Your task to perform on an android device: open app "Firefox Browser" Image 0: 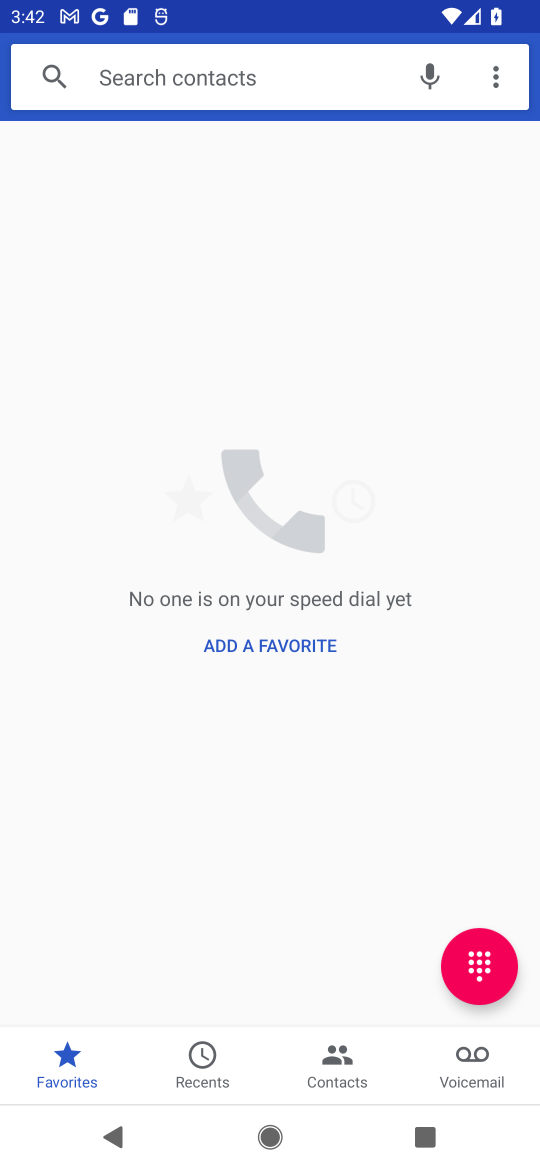
Step 0: press home button
Your task to perform on an android device: open app "Firefox Browser" Image 1: 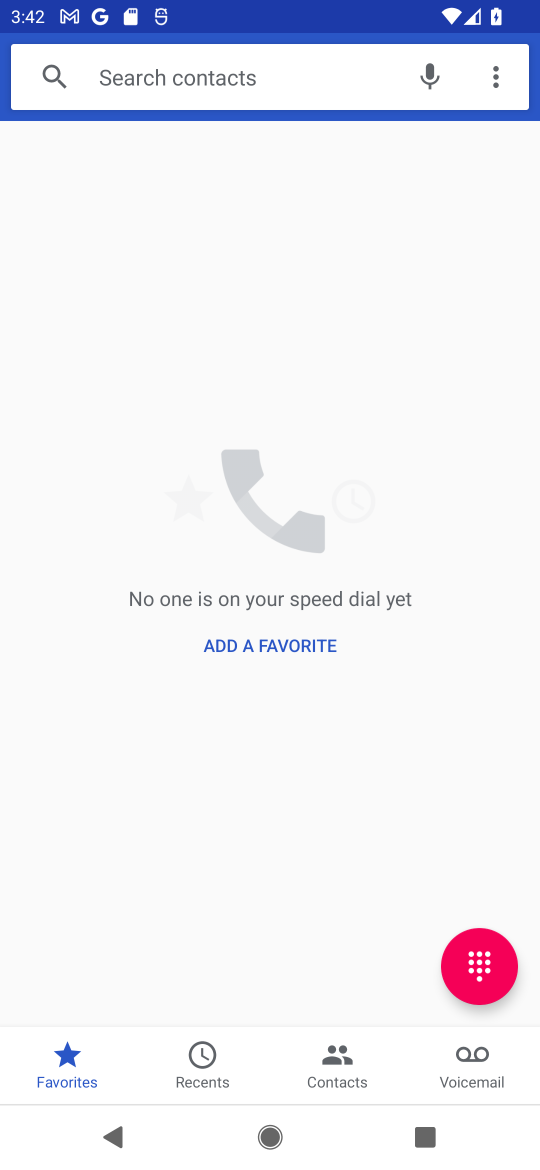
Step 1: press home button
Your task to perform on an android device: open app "Firefox Browser" Image 2: 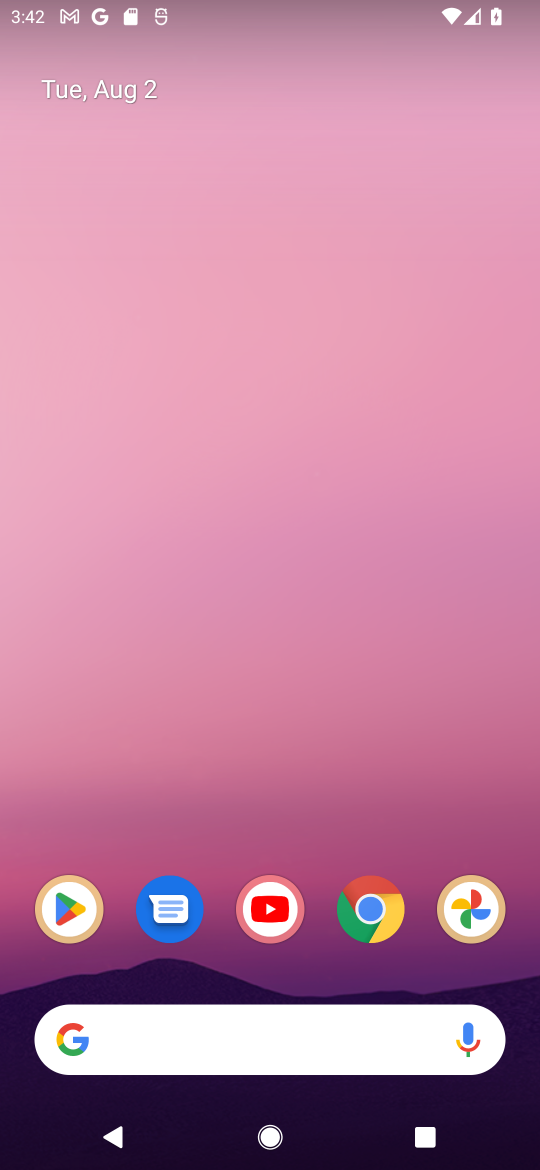
Step 2: drag from (235, 990) to (342, 317)
Your task to perform on an android device: open app "Firefox Browser" Image 3: 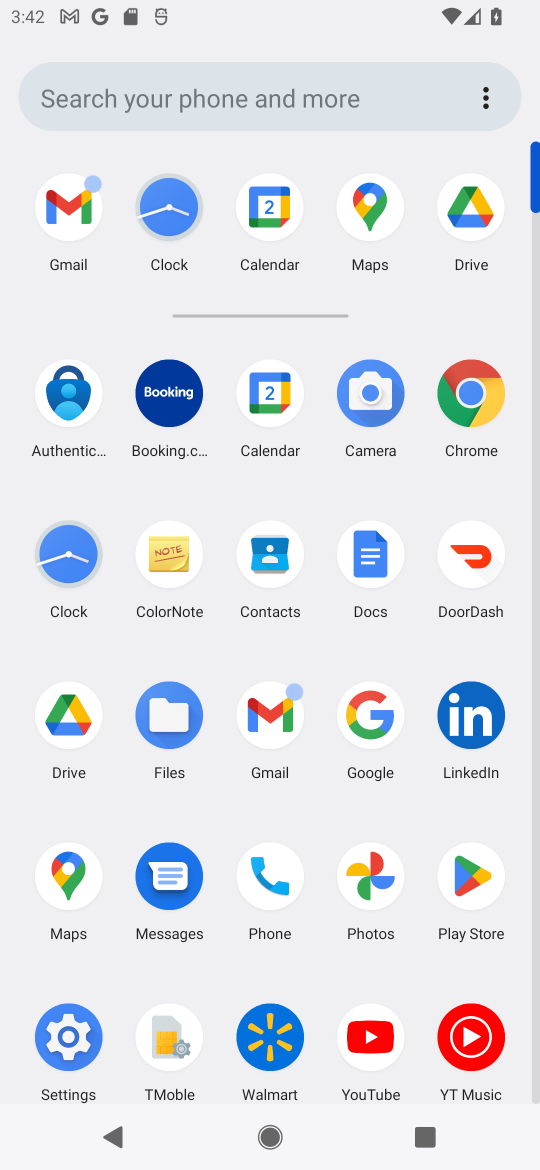
Step 3: press home button
Your task to perform on an android device: open app "Firefox Browser" Image 4: 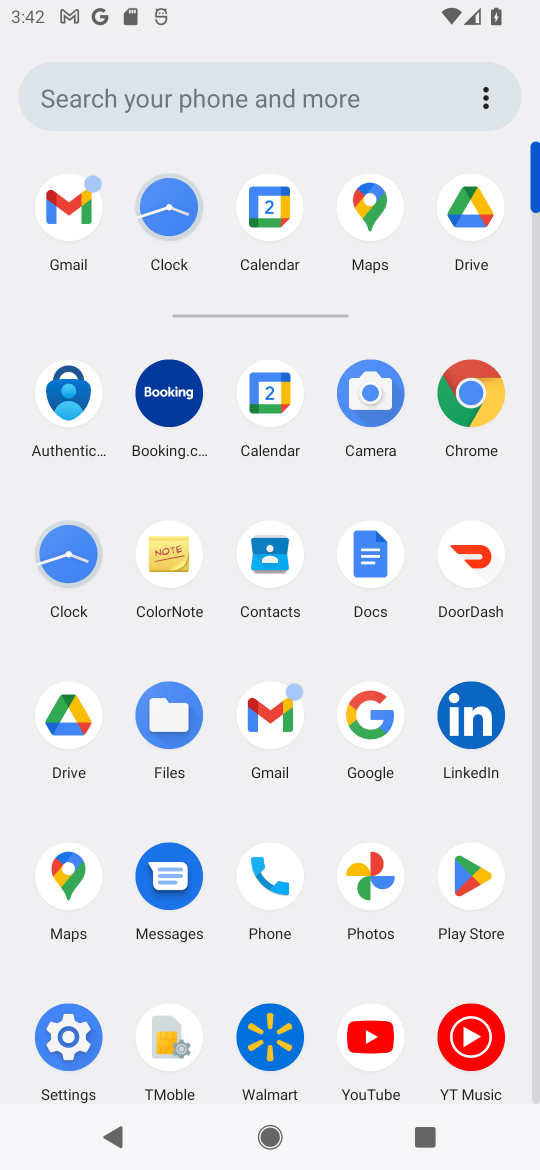
Step 4: press home button
Your task to perform on an android device: open app "Firefox Browser" Image 5: 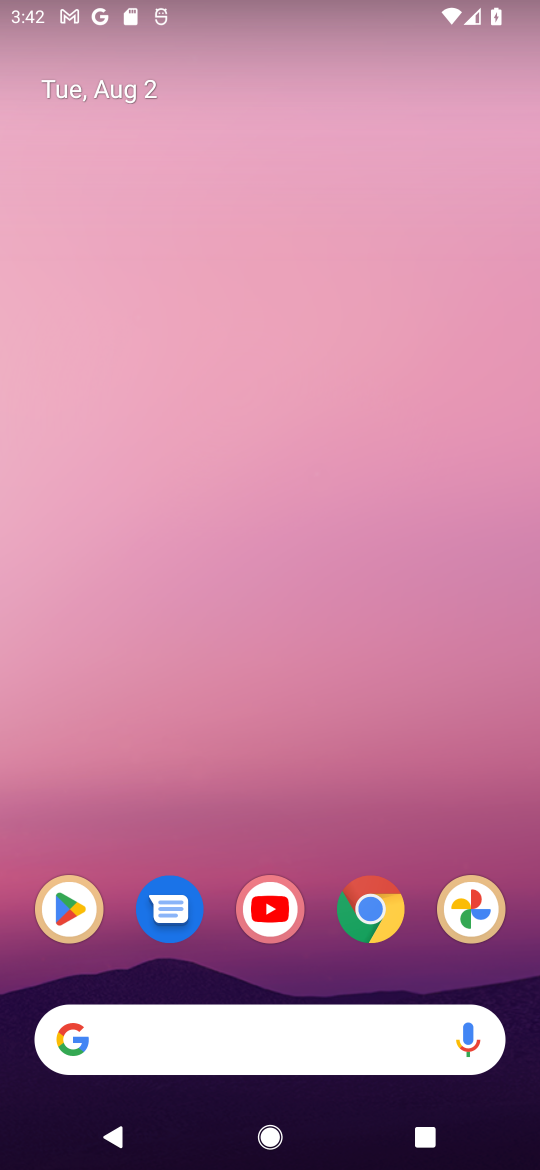
Step 5: drag from (280, 993) to (398, 176)
Your task to perform on an android device: open app "Firefox Browser" Image 6: 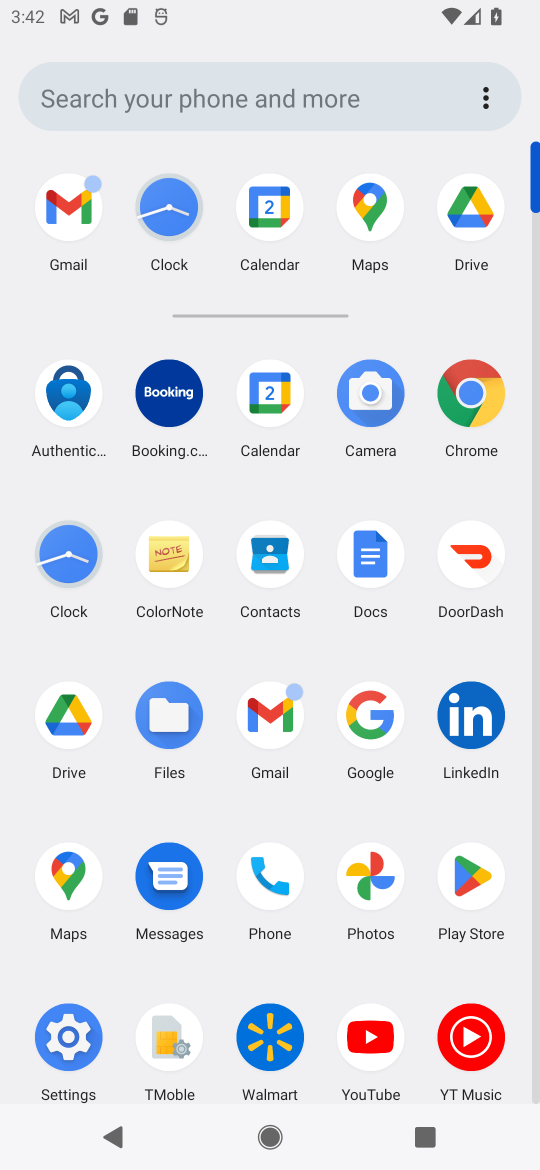
Step 6: click (476, 871)
Your task to perform on an android device: open app "Firefox Browser" Image 7: 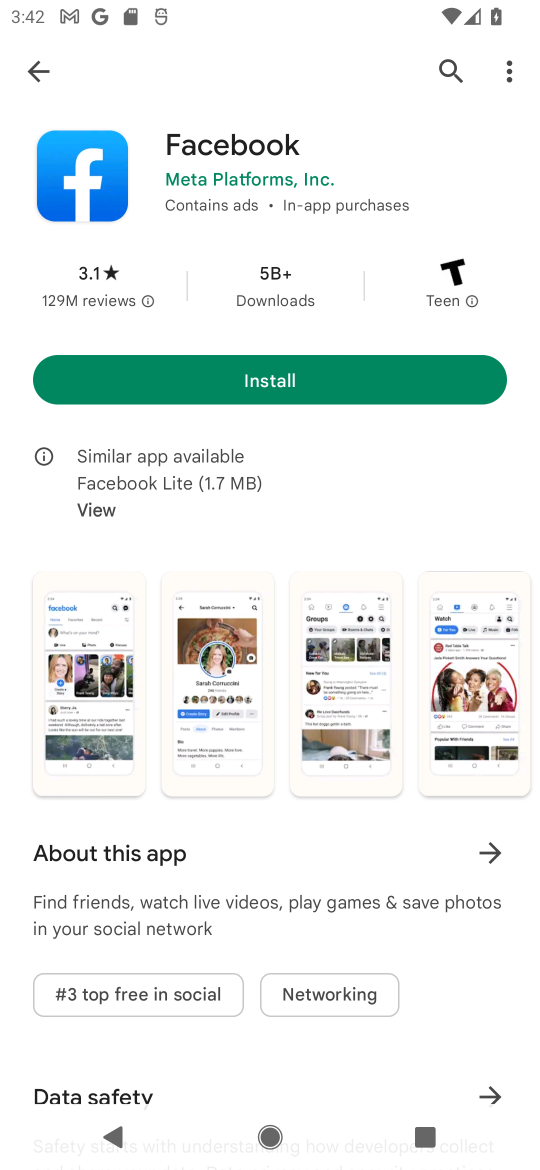
Step 7: drag from (297, 904) to (345, 1167)
Your task to perform on an android device: open app "Firefox Browser" Image 8: 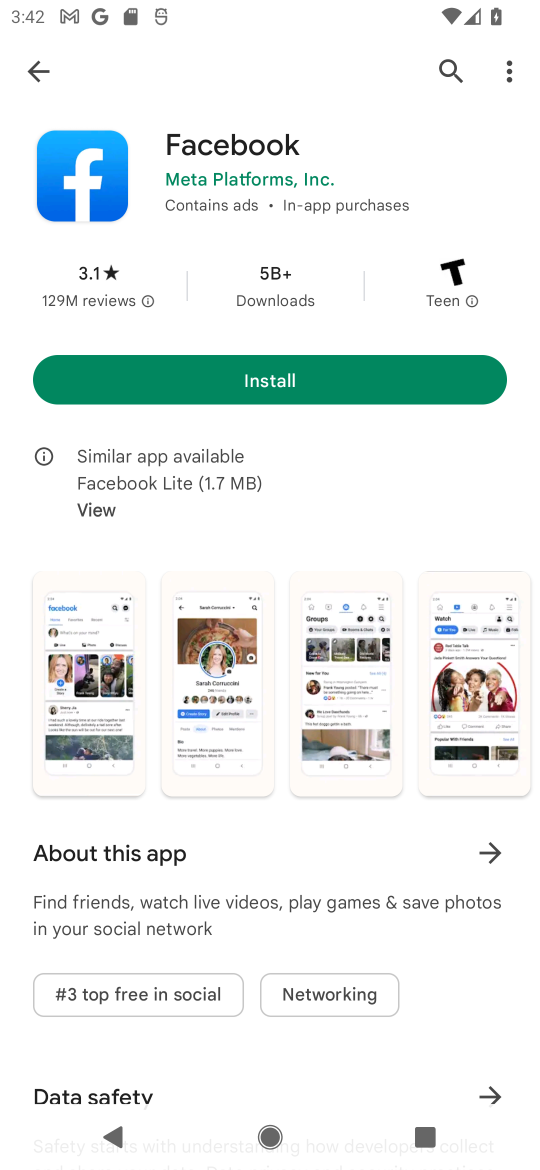
Step 8: click (443, 66)
Your task to perform on an android device: open app "Firefox Browser" Image 9: 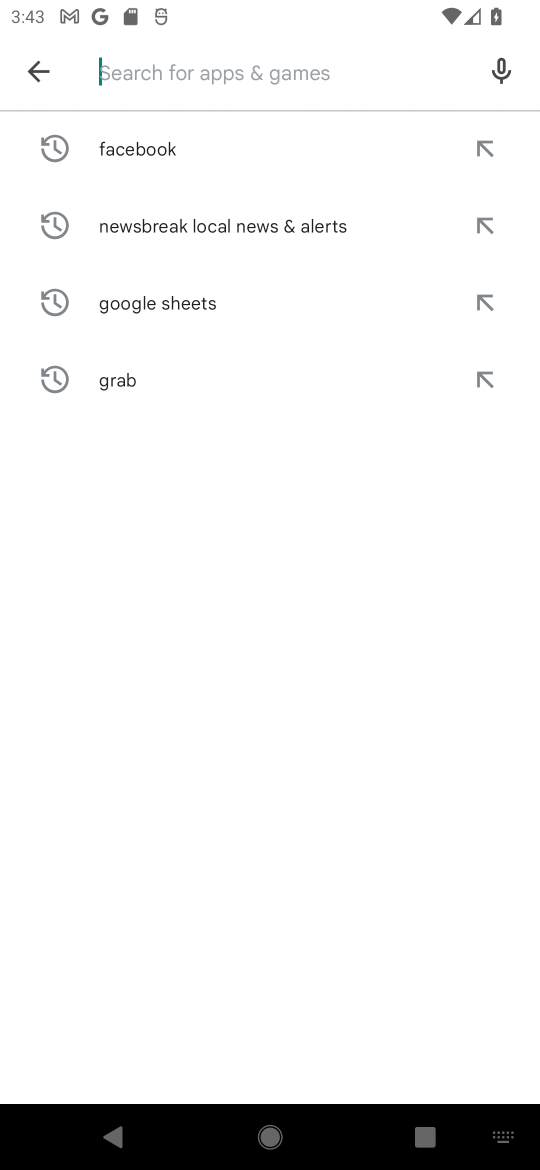
Step 9: type "Firefox Browser"
Your task to perform on an android device: open app "Firefox Browser" Image 10: 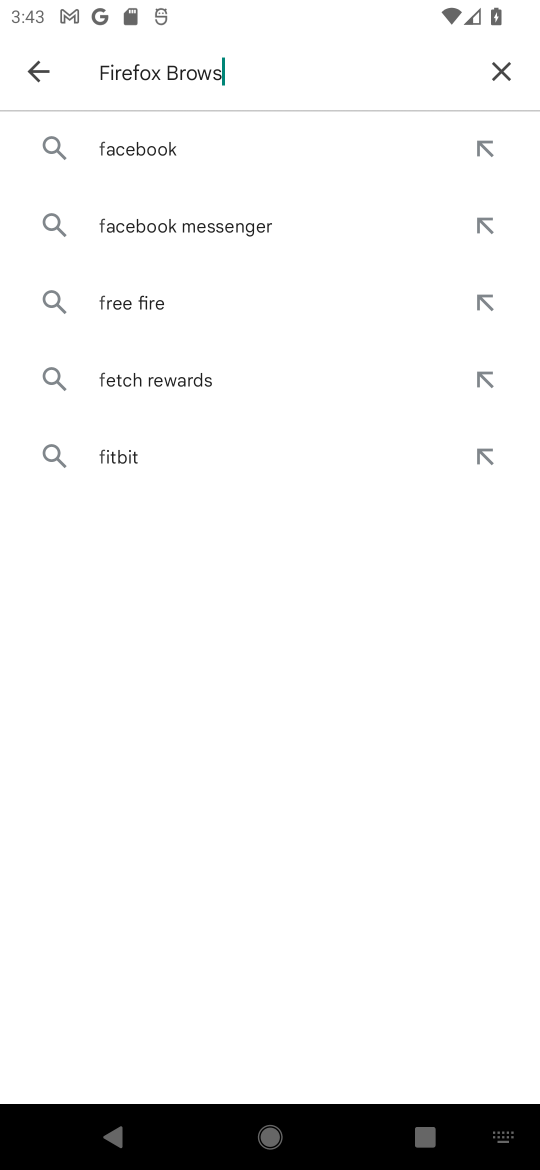
Step 10: type ""
Your task to perform on an android device: open app "Firefox Browser" Image 11: 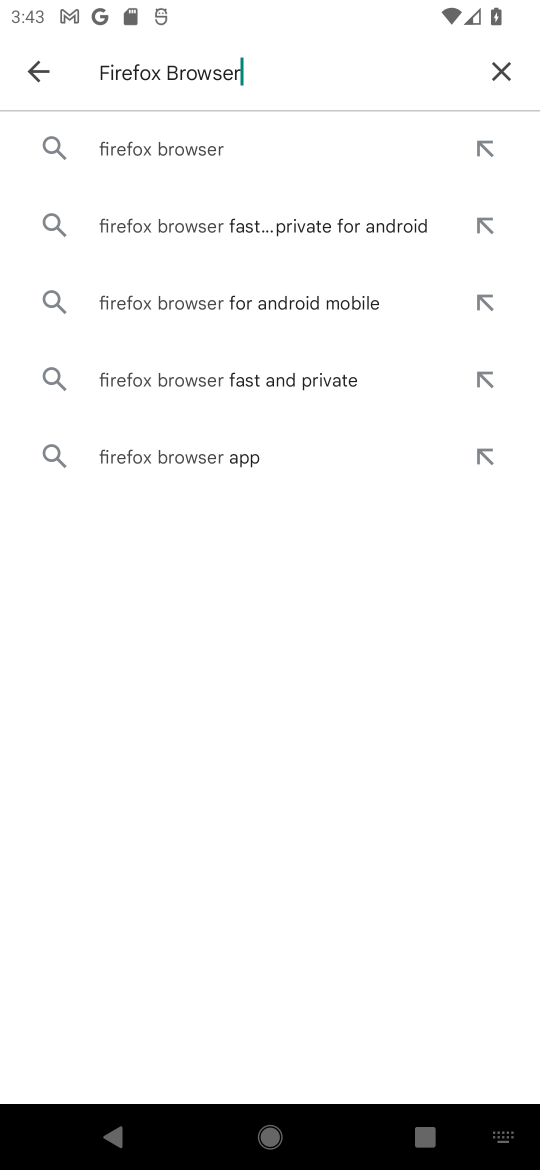
Step 11: click (162, 137)
Your task to perform on an android device: open app "Firefox Browser" Image 12: 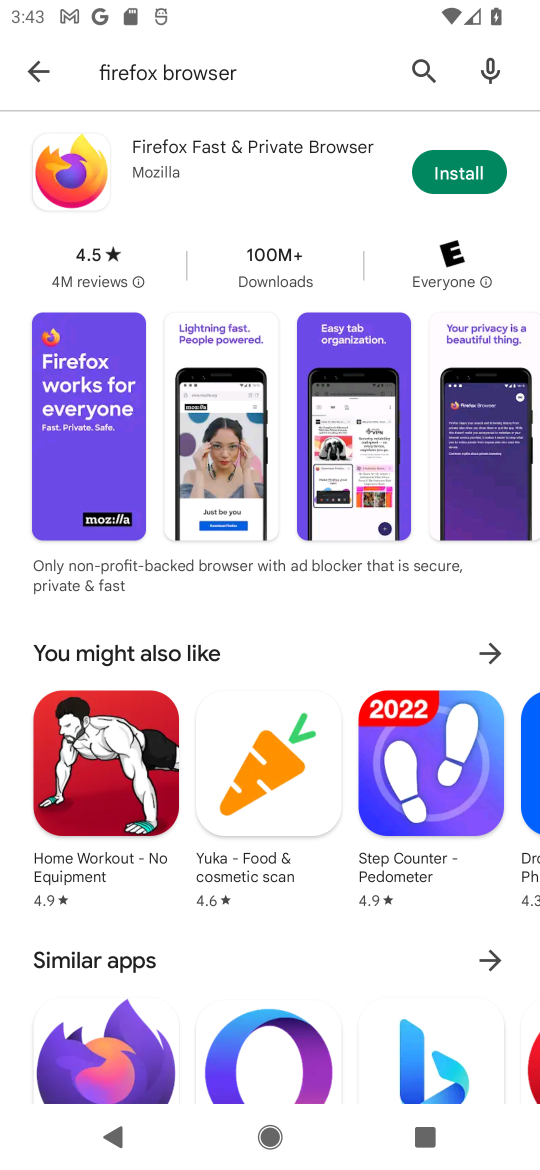
Step 12: click (171, 152)
Your task to perform on an android device: open app "Firefox Browser" Image 13: 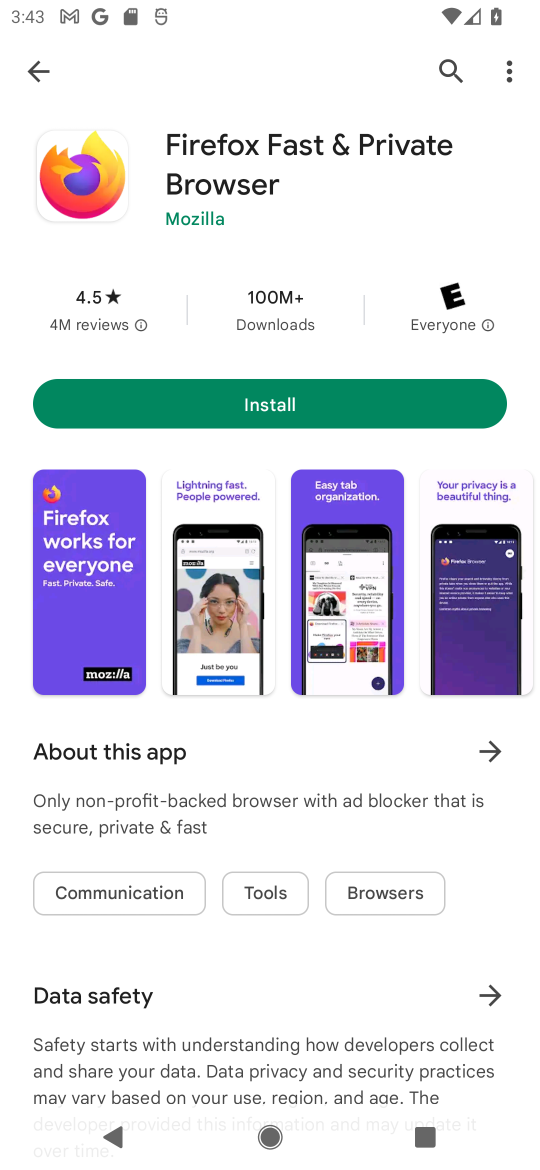
Step 13: task complete